Your task to perform on an android device: check google app version Image 0: 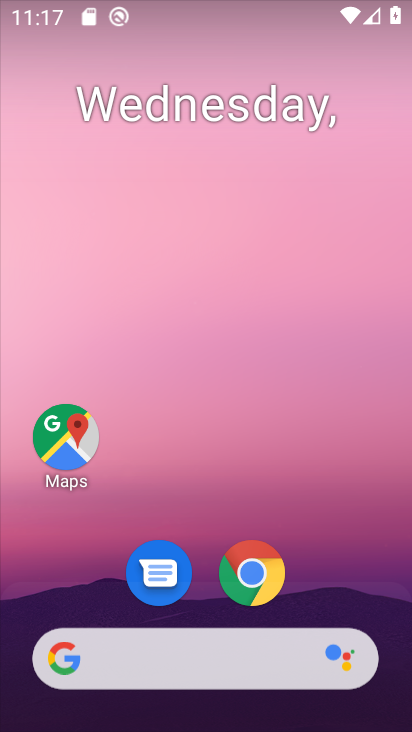
Step 0: drag from (326, 566) to (323, 70)
Your task to perform on an android device: check google app version Image 1: 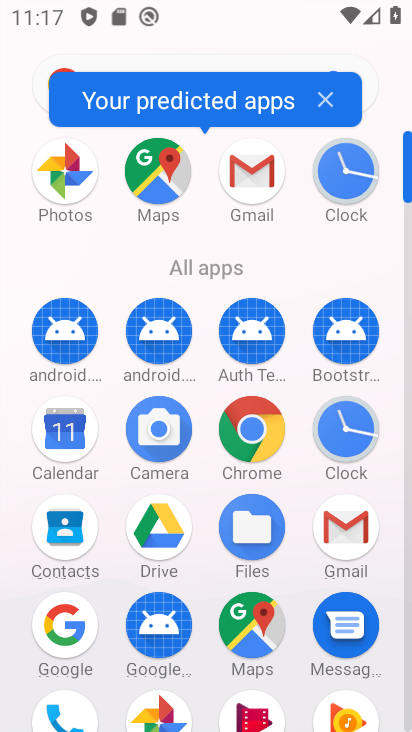
Step 1: click (69, 631)
Your task to perform on an android device: check google app version Image 2: 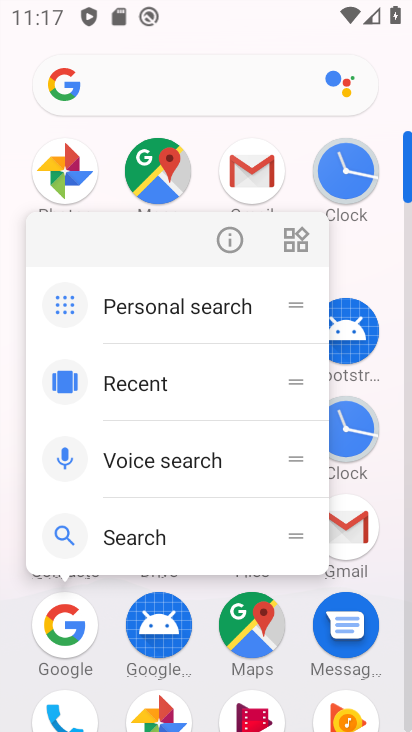
Step 2: click (226, 246)
Your task to perform on an android device: check google app version Image 3: 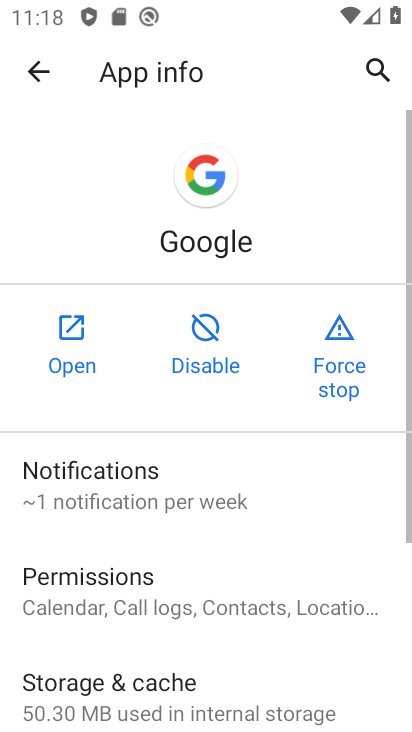
Step 3: drag from (328, 555) to (319, 174)
Your task to perform on an android device: check google app version Image 4: 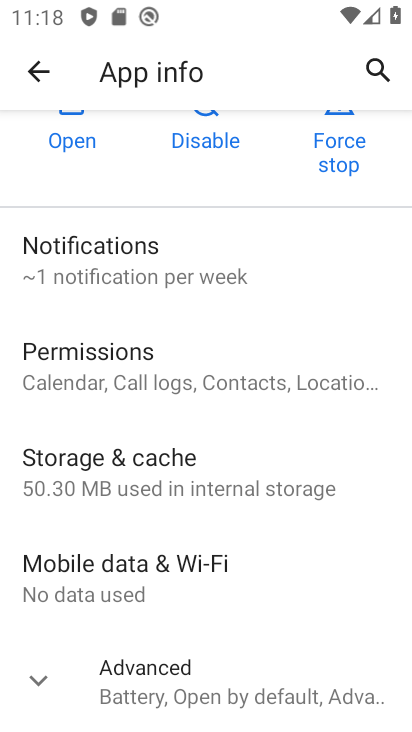
Step 4: click (260, 675)
Your task to perform on an android device: check google app version Image 5: 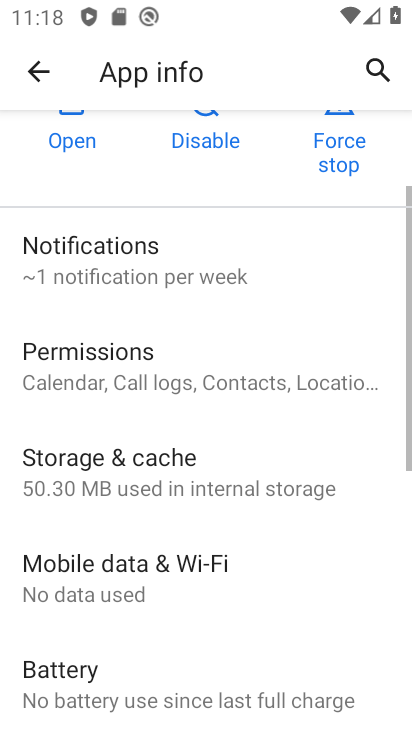
Step 5: task complete